Your task to perform on an android device: empty trash in google photos Image 0: 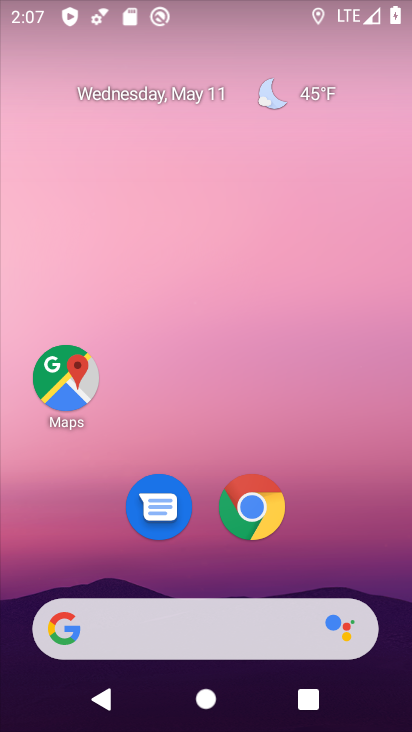
Step 0: drag from (331, 498) to (278, 40)
Your task to perform on an android device: empty trash in google photos Image 1: 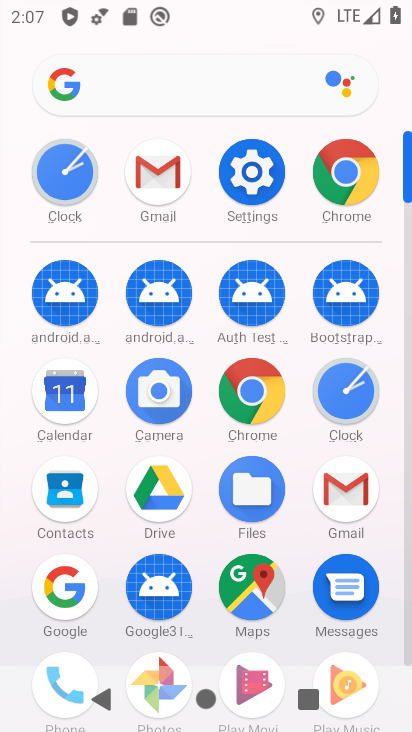
Step 1: drag from (5, 537) to (9, 240)
Your task to perform on an android device: empty trash in google photos Image 2: 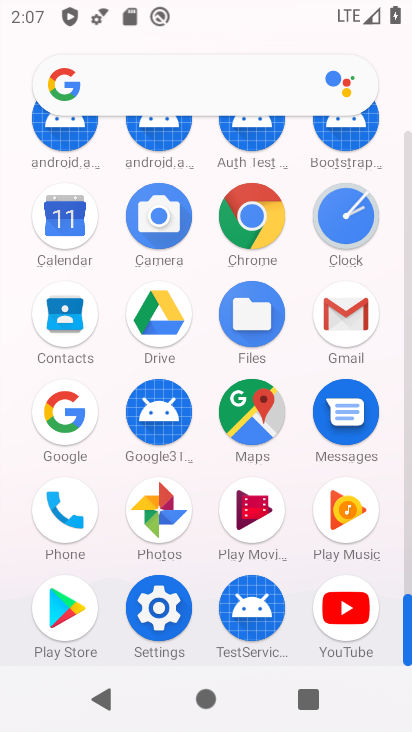
Step 2: click (158, 509)
Your task to perform on an android device: empty trash in google photos Image 3: 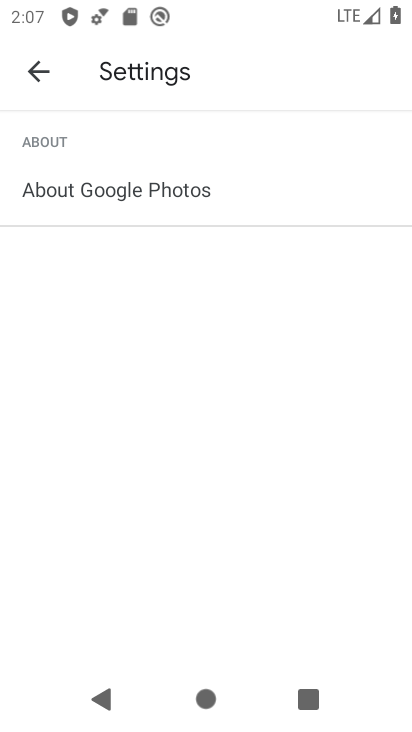
Step 3: click (46, 71)
Your task to perform on an android device: empty trash in google photos Image 4: 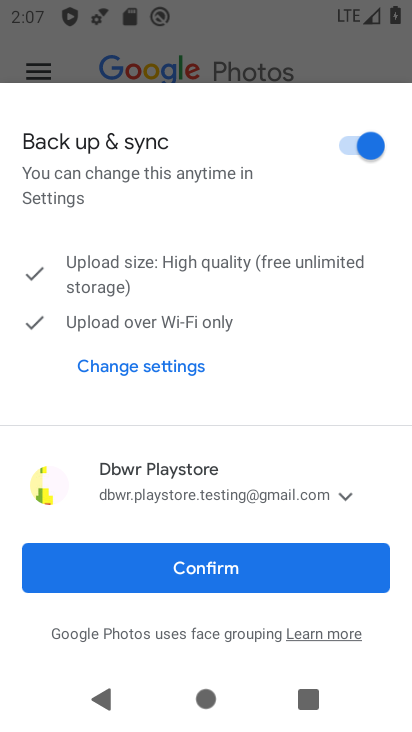
Step 4: click (210, 560)
Your task to perform on an android device: empty trash in google photos Image 5: 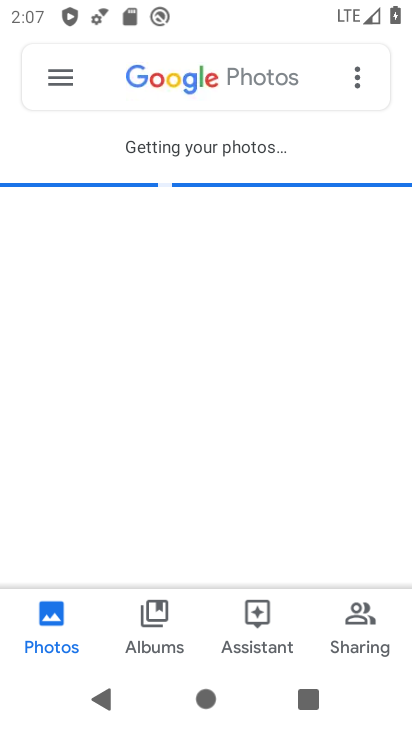
Step 5: click (44, 71)
Your task to perform on an android device: empty trash in google photos Image 6: 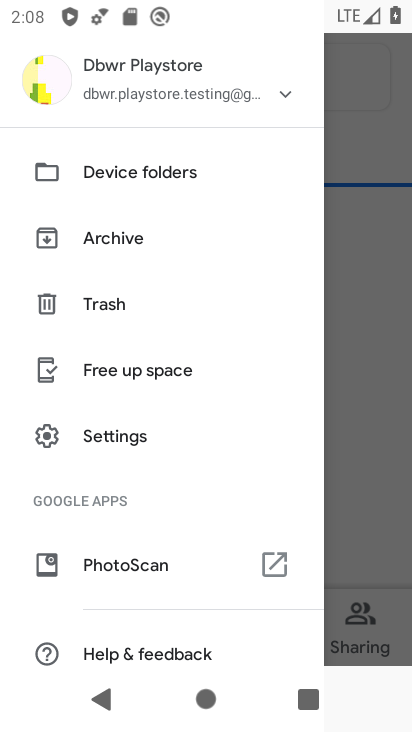
Step 6: click (134, 307)
Your task to perform on an android device: empty trash in google photos Image 7: 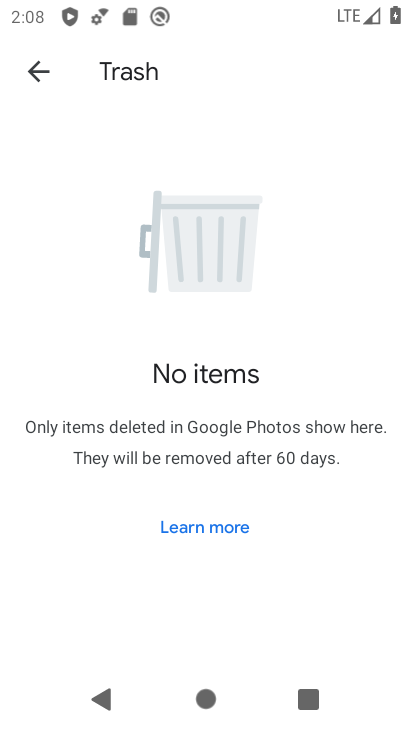
Step 7: task complete